Your task to perform on an android device: Go to internet settings Image 0: 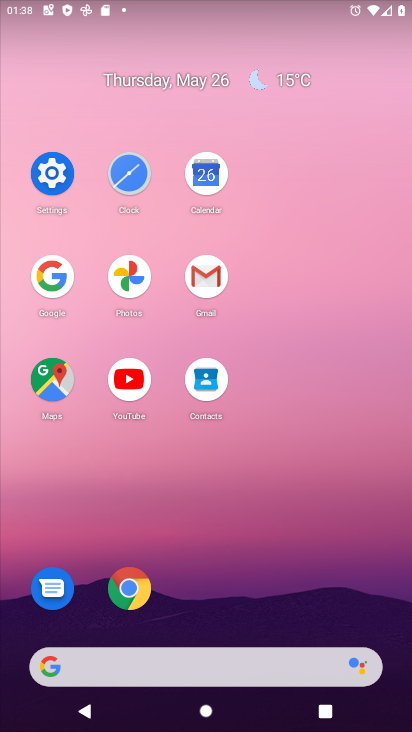
Step 0: click (73, 166)
Your task to perform on an android device: Go to internet settings Image 1: 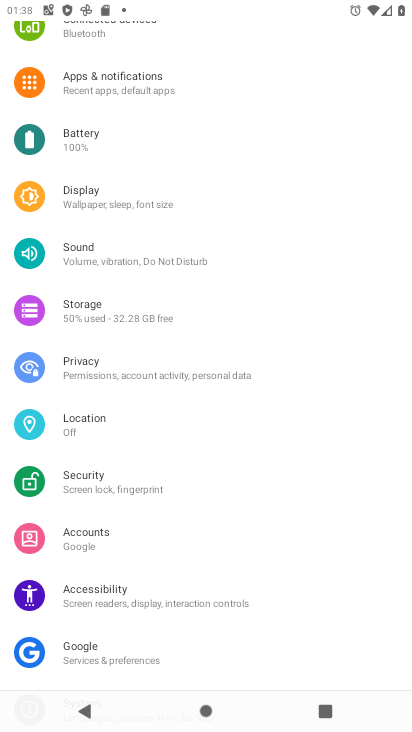
Step 1: drag from (174, 131) to (195, 457)
Your task to perform on an android device: Go to internet settings Image 2: 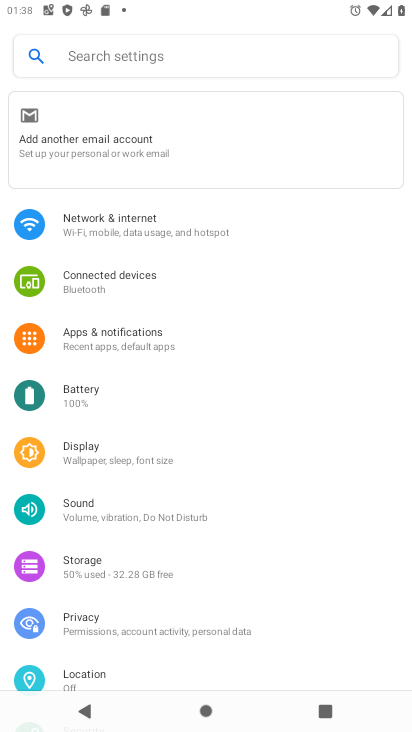
Step 2: click (215, 209)
Your task to perform on an android device: Go to internet settings Image 3: 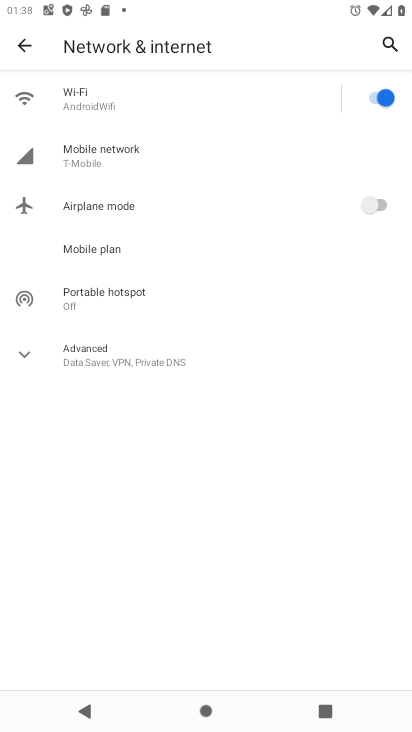
Step 3: task complete